Your task to perform on an android device: turn notification dots off Image 0: 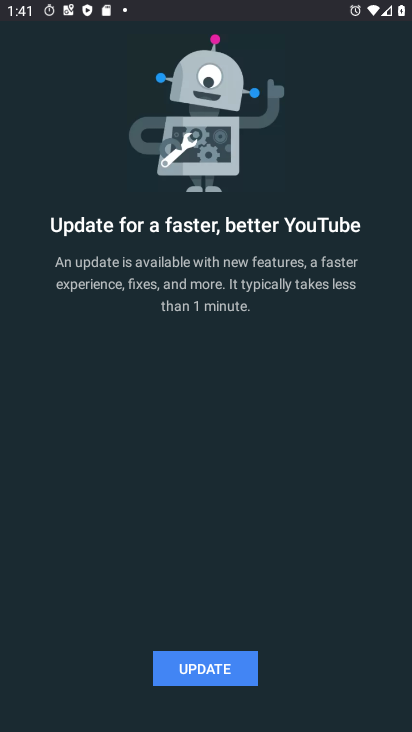
Step 0: press home button
Your task to perform on an android device: turn notification dots off Image 1: 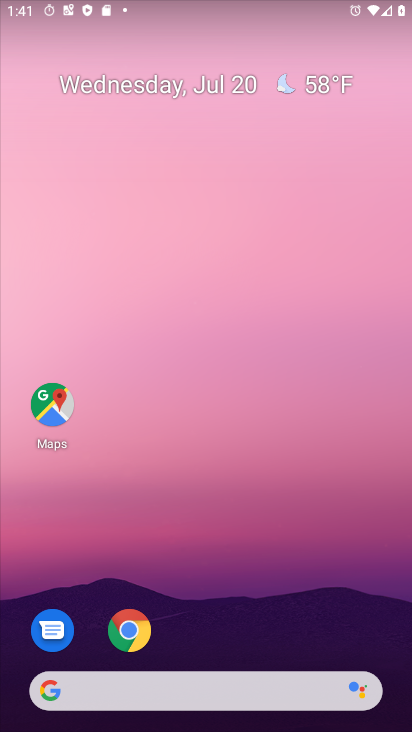
Step 1: drag from (188, 702) to (297, 66)
Your task to perform on an android device: turn notification dots off Image 2: 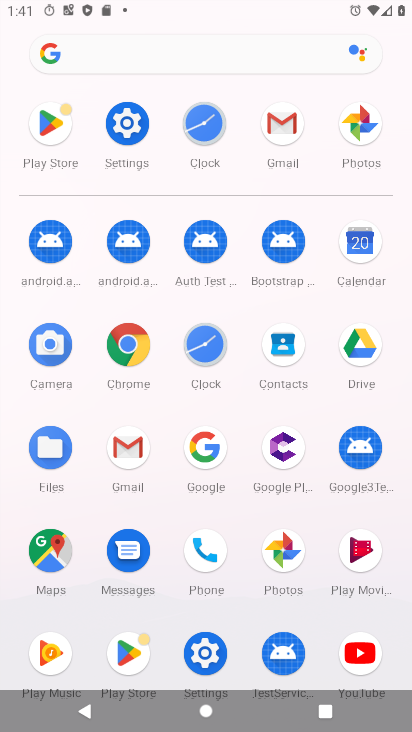
Step 2: click (129, 132)
Your task to perform on an android device: turn notification dots off Image 3: 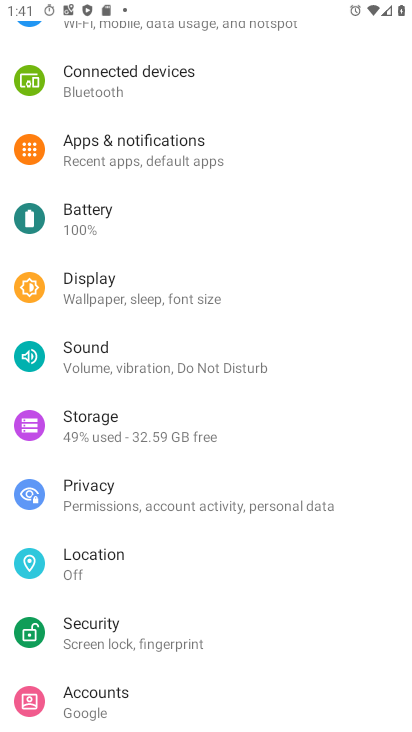
Step 3: click (156, 154)
Your task to perform on an android device: turn notification dots off Image 4: 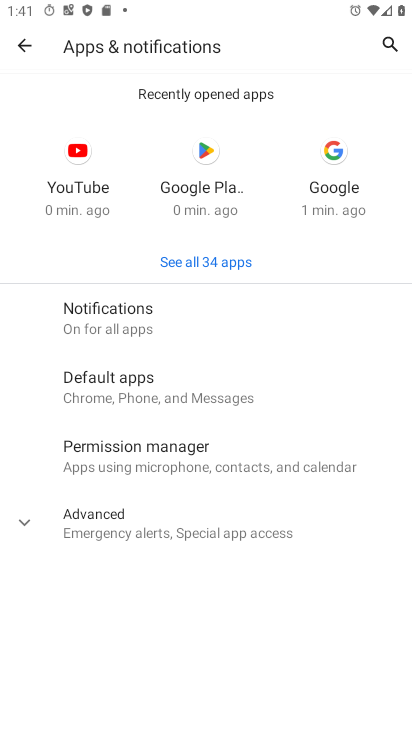
Step 4: click (118, 318)
Your task to perform on an android device: turn notification dots off Image 5: 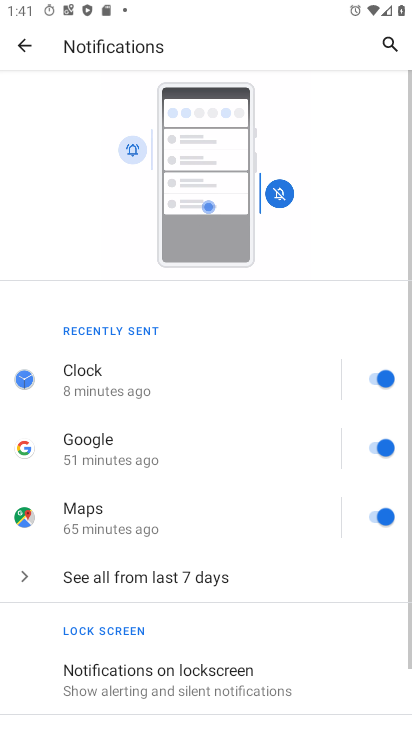
Step 5: drag from (235, 630) to (330, 96)
Your task to perform on an android device: turn notification dots off Image 6: 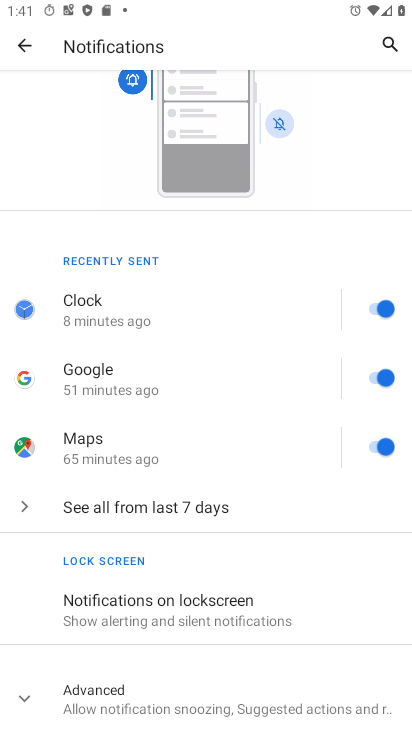
Step 6: click (139, 702)
Your task to perform on an android device: turn notification dots off Image 7: 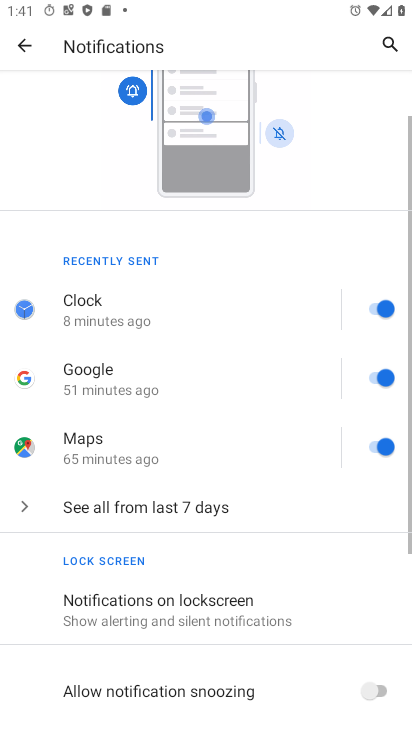
Step 7: drag from (194, 666) to (334, 137)
Your task to perform on an android device: turn notification dots off Image 8: 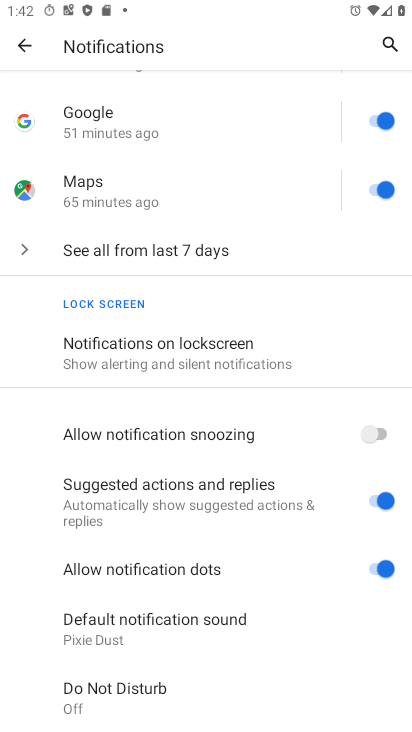
Step 8: click (375, 568)
Your task to perform on an android device: turn notification dots off Image 9: 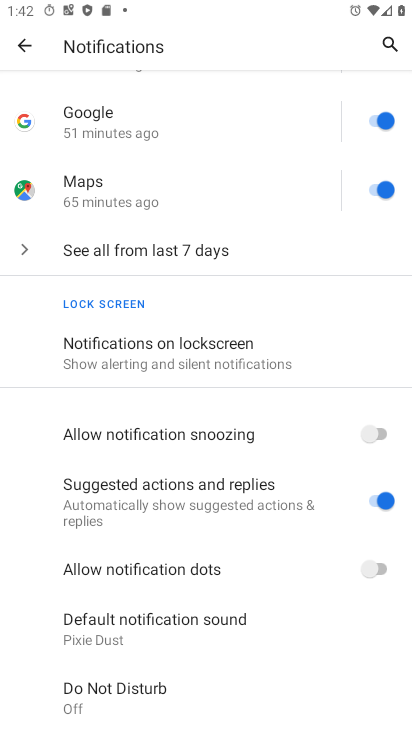
Step 9: task complete